Your task to perform on an android device: Search for "usb-a to usb-b" on newegg.com, select the first entry, and add it to the cart. Image 0: 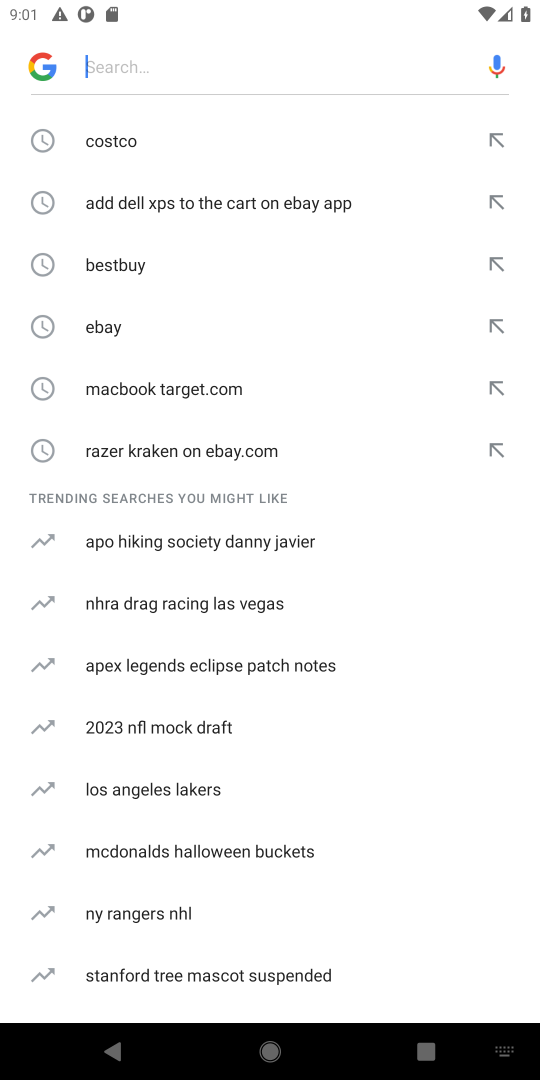
Step 0: type "newegg.com"
Your task to perform on an android device: Search for "usb-a to usb-b" on newegg.com, select the first entry, and add it to the cart. Image 1: 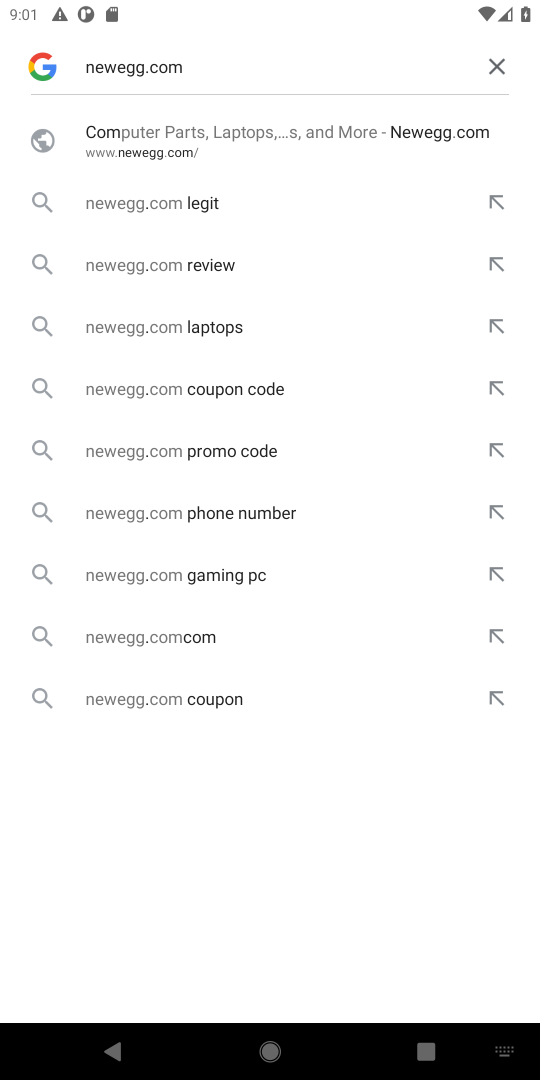
Step 1: click (197, 133)
Your task to perform on an android device: Search for "usb-a to usb-b" on newegg.com, select the first entry, and add it to the cart. Image 2: 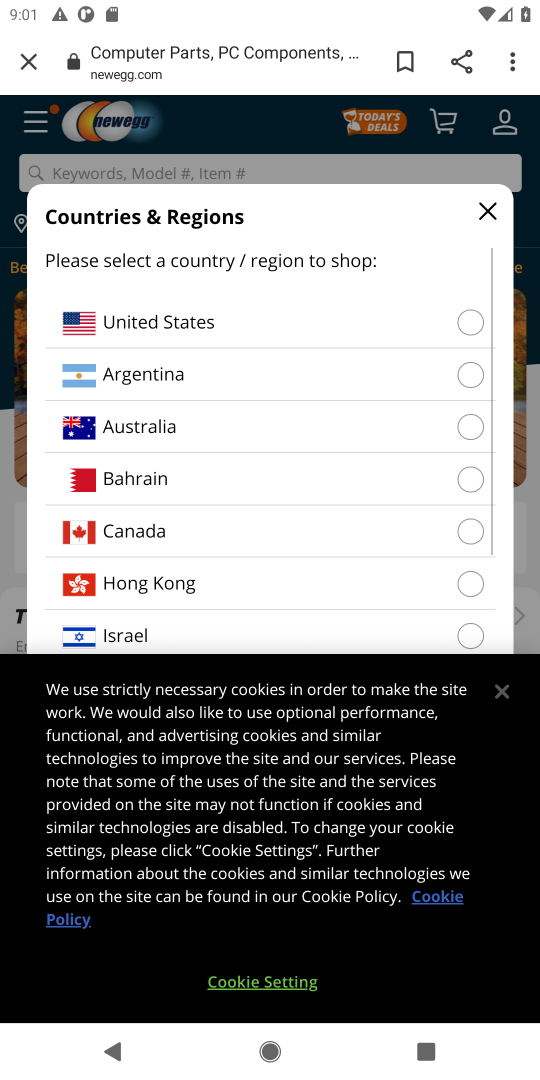
Step 2: click (481, 207)
Your task to perform on an android device: Search for "usb-a to usb-b" on newegg.com, select the first entry, and add it to the cart. Image 3: 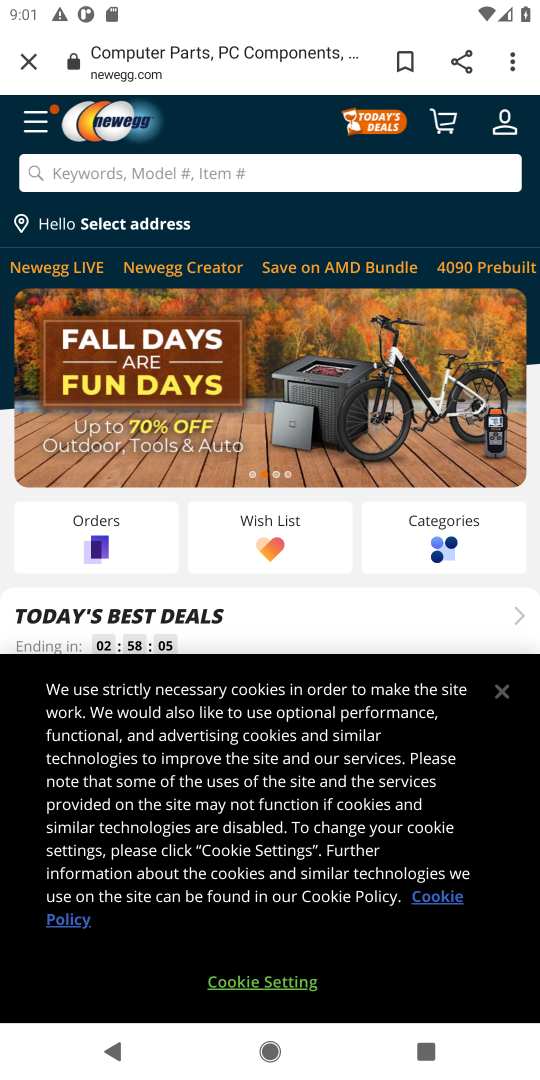
Step 3: click (502, 693)
Your task to perform on an android device: Search for "usb-a to usb-b" on newegg.com, select the first entry, and add it to the cart. Image 4: 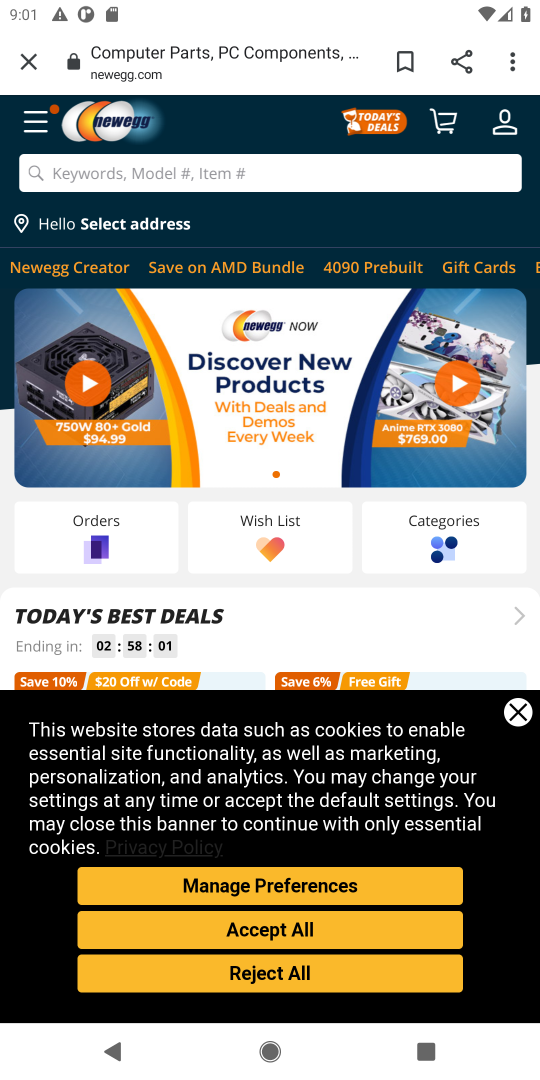
Step 4: click (253, 927)
Your task to perform on an android device: Search for "usb-a to usb-b" on newegg.com, select the first entry, and add it to the cart. Image 5: 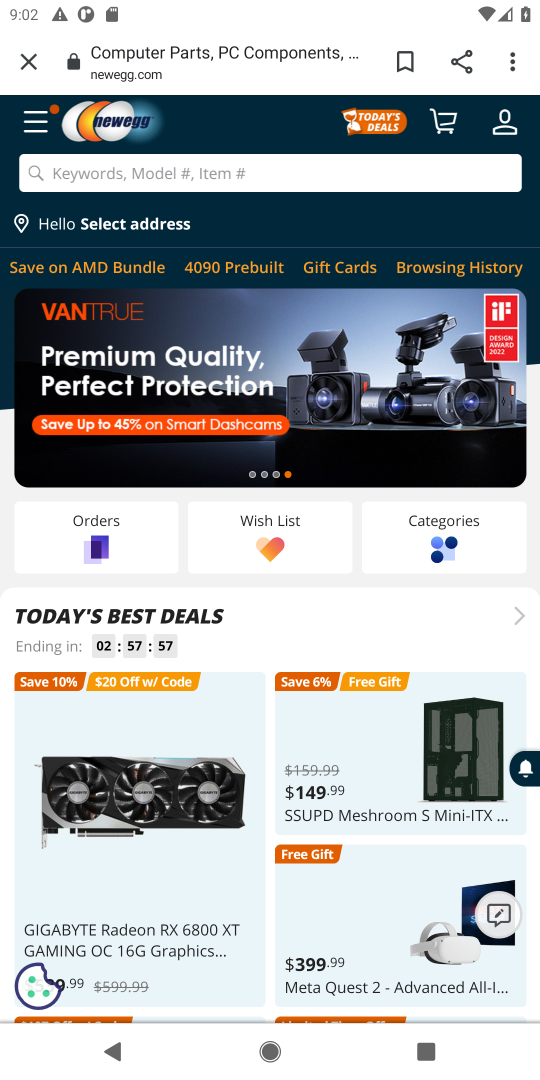
Step 5: click (179, 167)
Your task to perform on an android device: Search for "usb-a to usb-b" on newegg.com, select the first entry, and add it to the cart. Image 6: 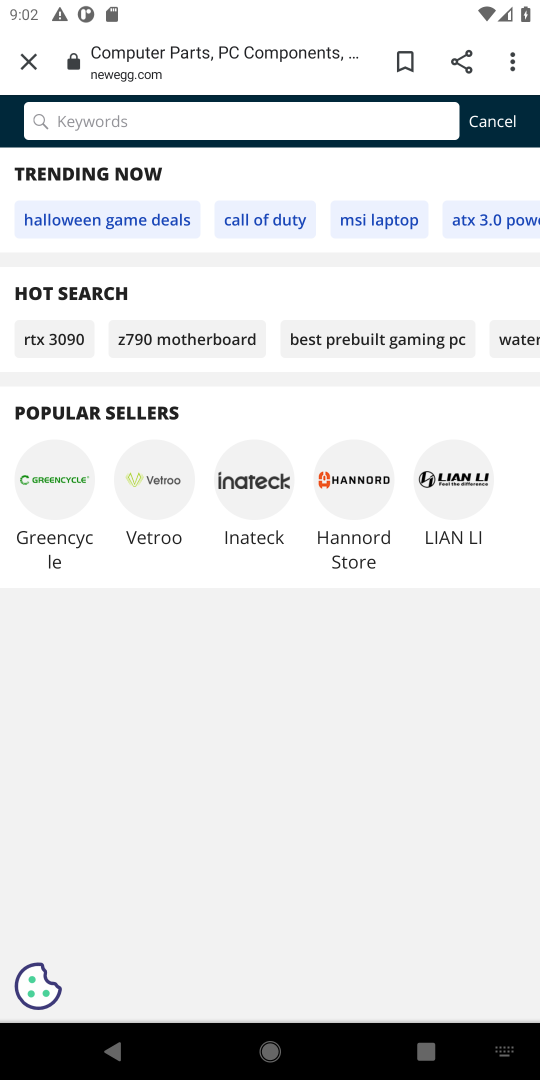
Step 6: type "usb-a to usb-b"
Your task to perform on an android device: Search for "usb-a to usb-b" on newegg.com, select the first entry, and add it to the cart. Image 7: 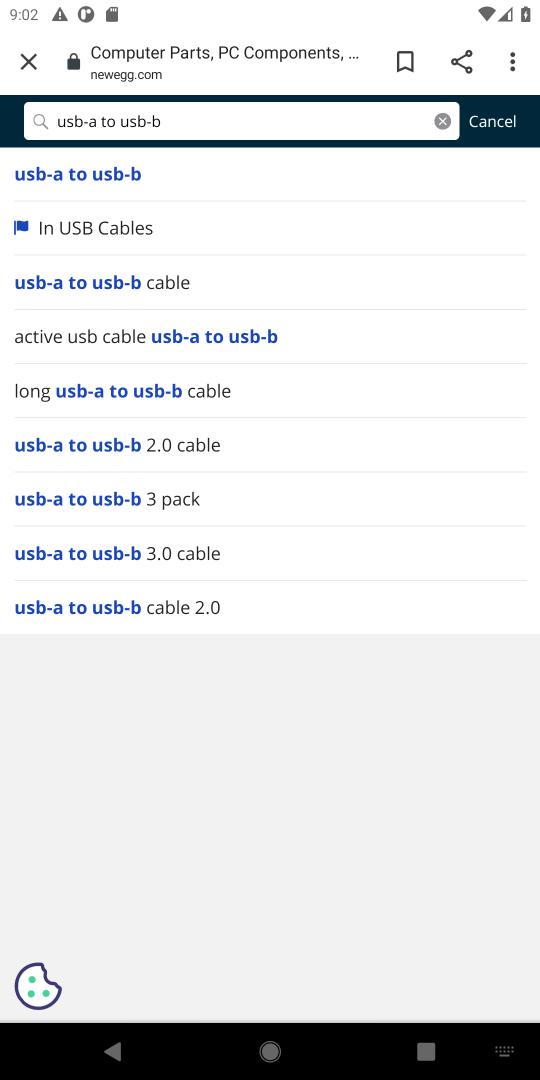
Step 7: click (109, 167)
Your task to perform on an android device: Search for "usb-a to usb-b" on newegg.com, select the first entry, and add it to the cart. Image 8: 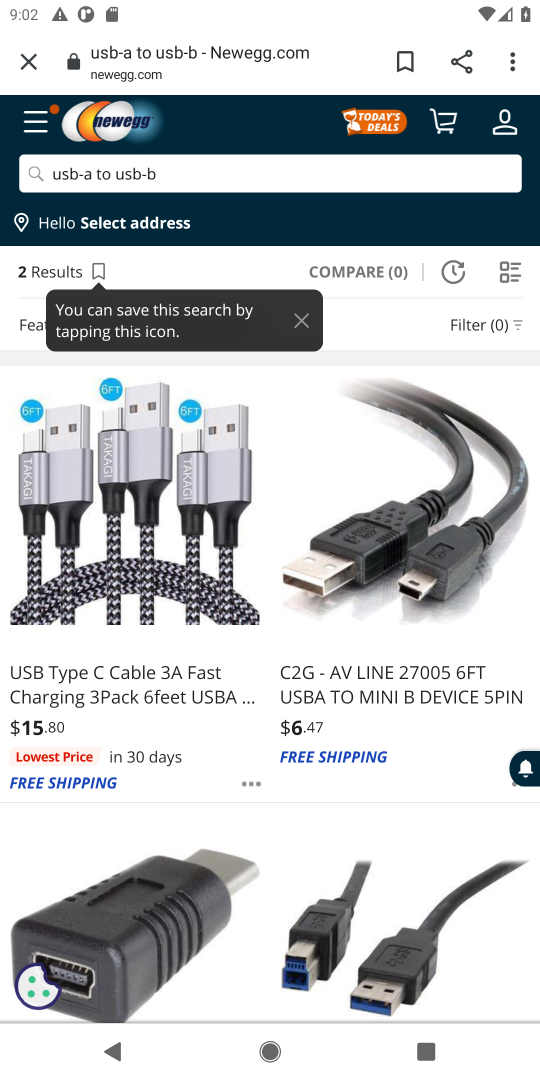
Step 8: click (98, 676)
Your task to perform on an android device: Search for "usb-a to usb-b" on newegg.com, select the first entry, and add it to the cart. Image 9: 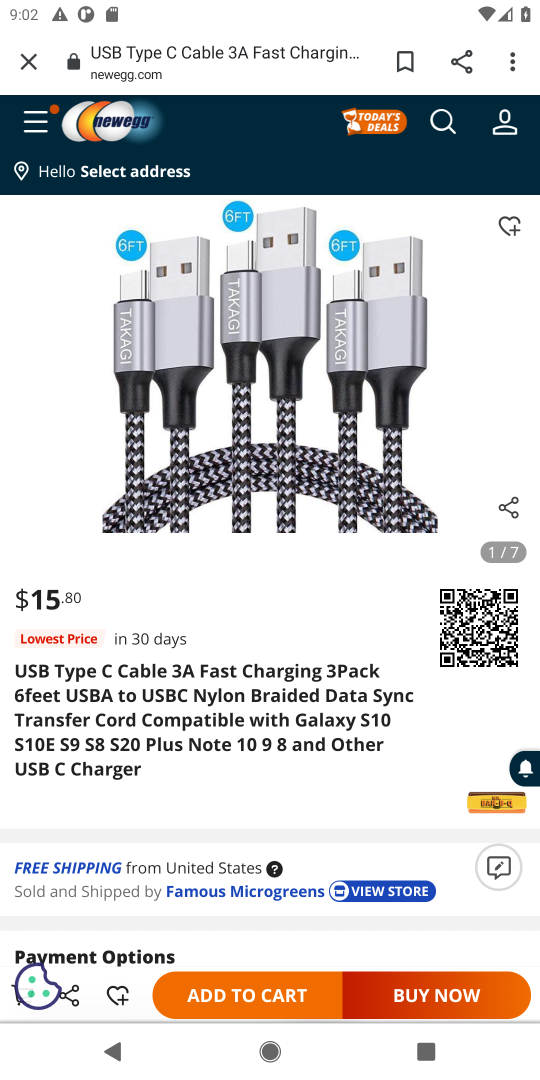
Step 9: click (264, 993)
Your task to perform on an android device: Search for "usb-a to usb-b" on newegg.com, select the first entry, and add it to the cart. Image 10: 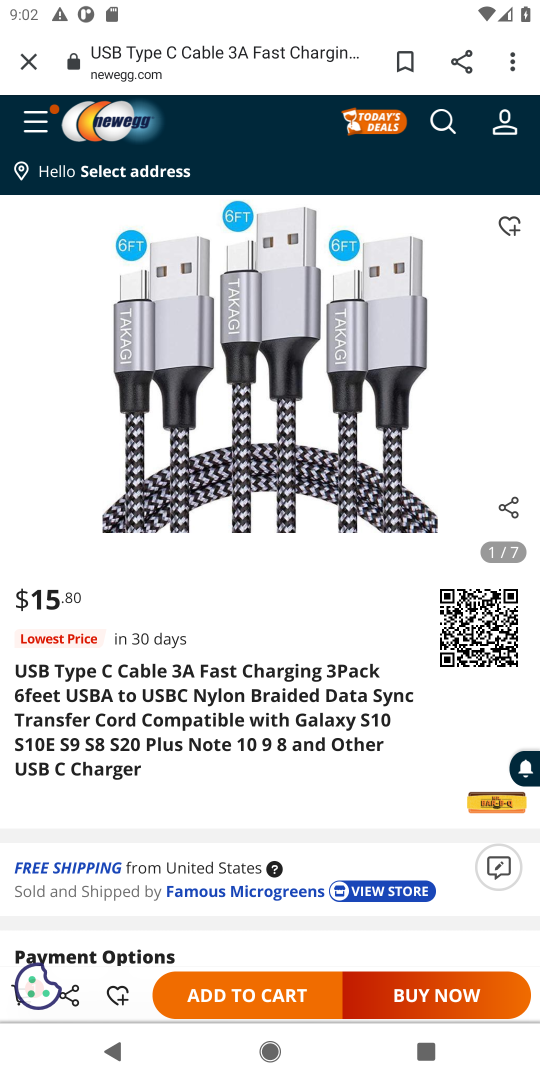
Step 10: task complete